Your task to perform on an android device: Search for the best vacuum on Walmart Image 0: 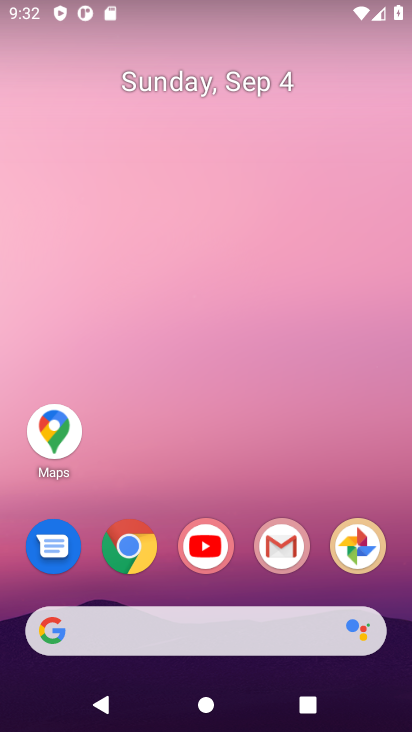
Step 0: click (138, 555)
Your task to perform on an android device: Search for the best vacuum on Walmart Image 1: 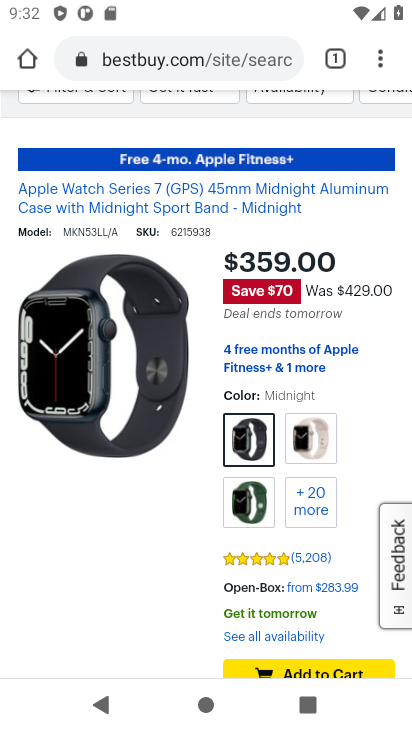
Step 1: click (164, 62)
Your task to perform on an android device: Search for the best vacuum on Walmart Image 2: 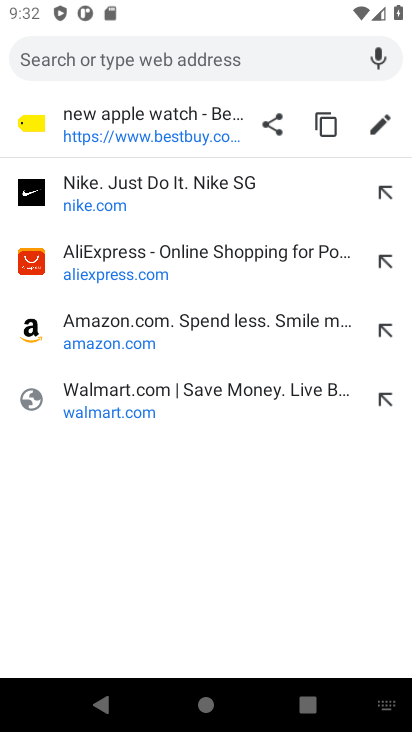
Step 2: type "Walmart"
Your task to perform on an android device: Search for the best vacuum on Walmart Image 3: 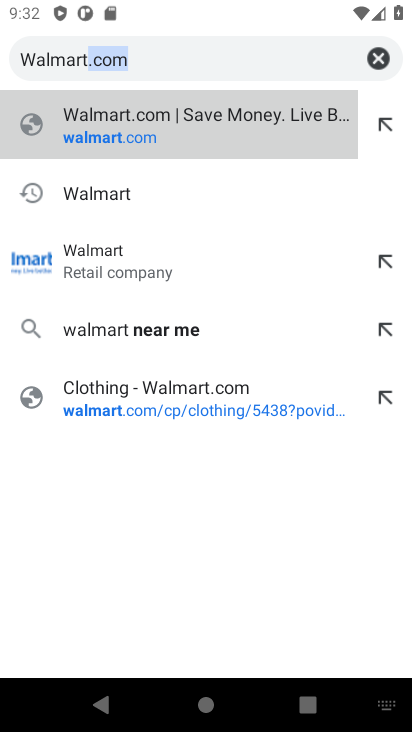
Step 3: click (110, 198)
Your task to perform on an android device: Search for the best vacuum on Walmart Image 4: 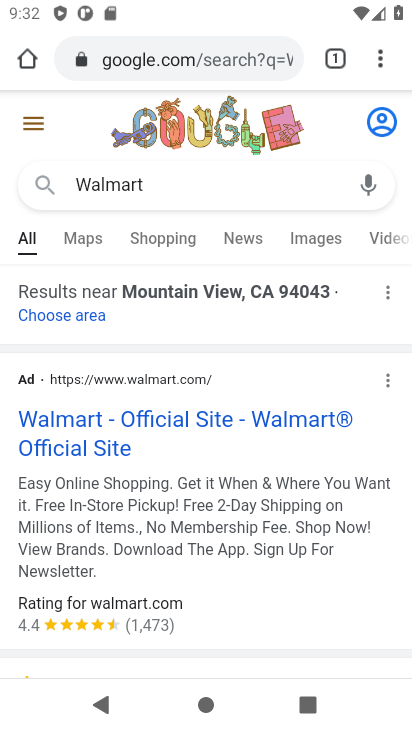
Step 4: drag from (344, 505) to (319, 241)
Your task to perform on an android device: Search for the best vacuum on Walmart Image 5: 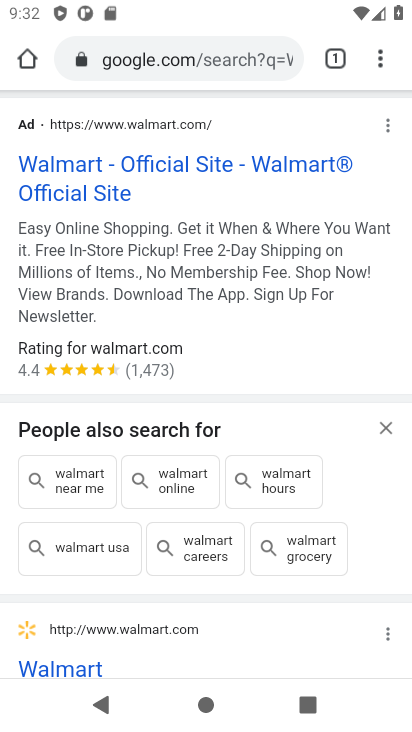
Step 5: drag from (336, 588) to (318, 311)
Your task to perform on an android device: Search for the best vacuum on Walmart Image 6: 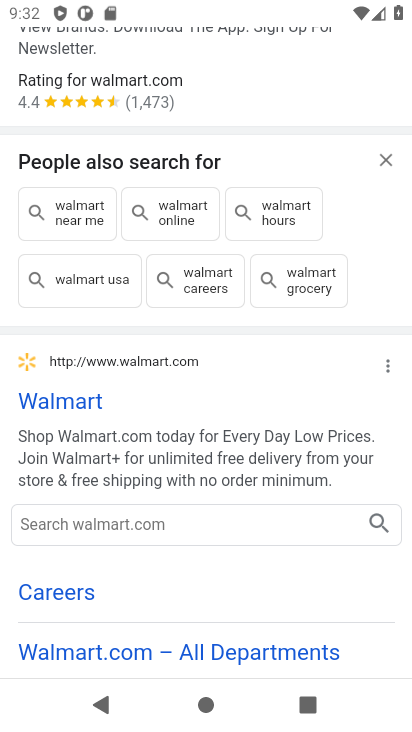
Step 6: drag from (231, 508) to (239, 378)
Your task to perform on an android device: Search for the best vacuum on Walmart Image 7: 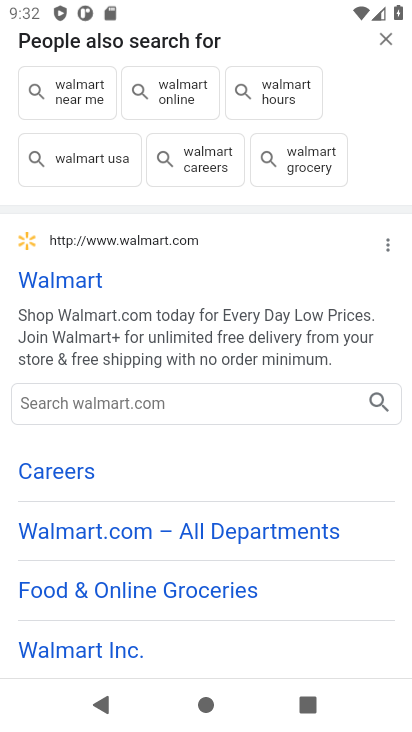
Step 7: click (49, 282)
Your task to perform on an android device: Search for the best vacuum on Walmart Image 8: 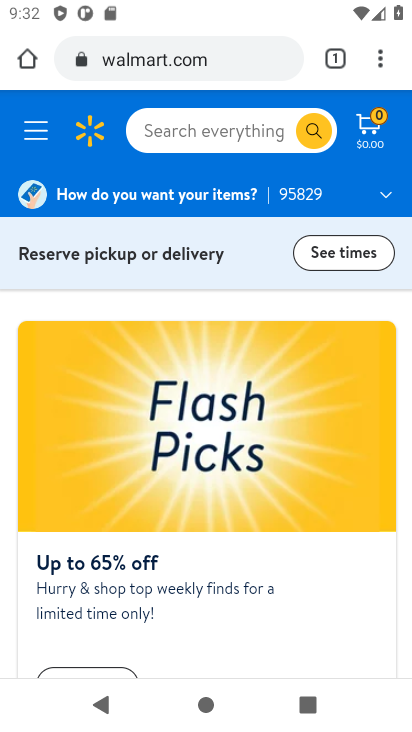
Step 8: click (170, 132)
Your task to perform on an android device: Search for the best vacuum on Walmart Image 9: 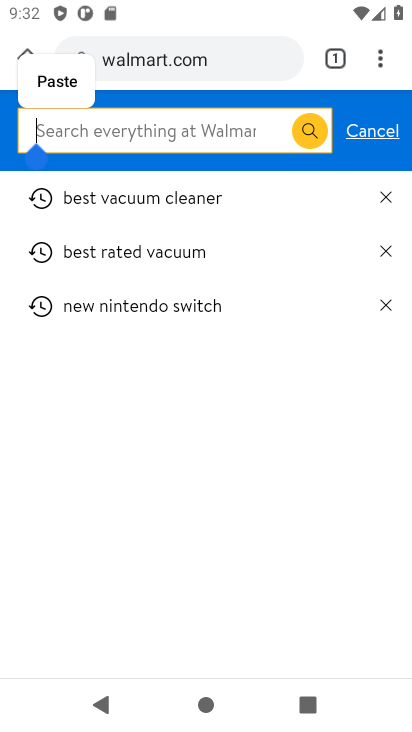
Step 9: type "best vacuum "
Your task to perform on an android device: Search for the best vacuum on Walmart Image 10: 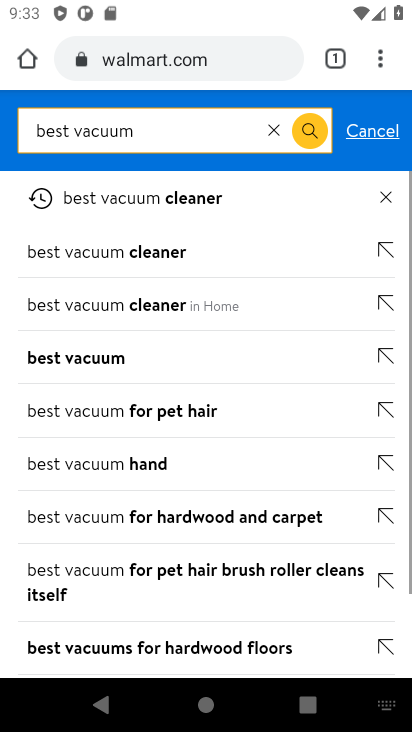
Step 10: click (61, 359)
Your task to perform on an android device: Search for the best vacuum on Walmart Image 11: 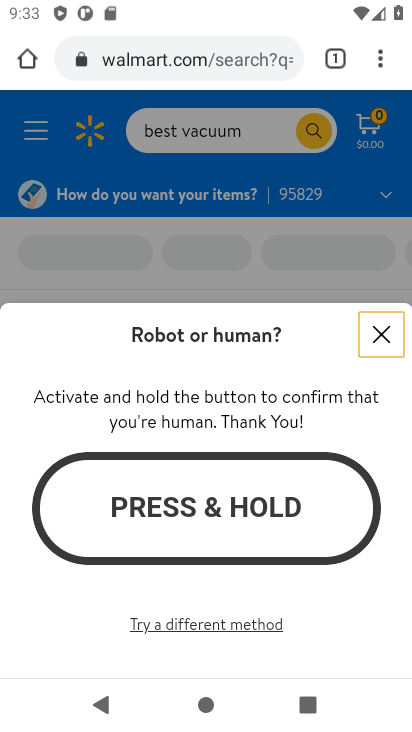
Step 11: click (190, 626)
Your task to perform on an android device: Search for the best vacuum on Walmart Image 12: 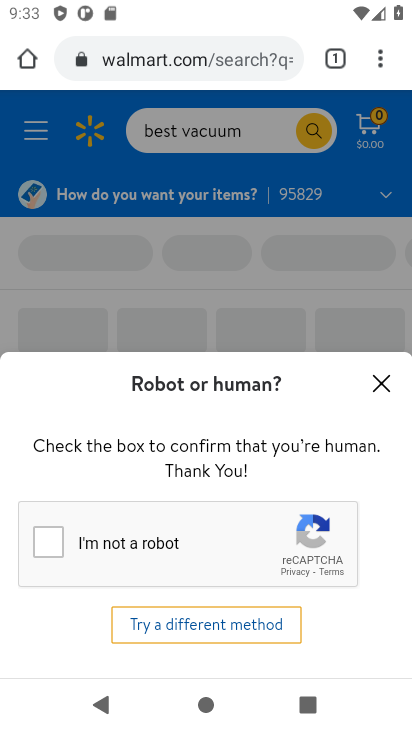
Step 12: click (48, 544)
Your task to perform on an android device: Search for the best vacuum on Walmart Image 13: 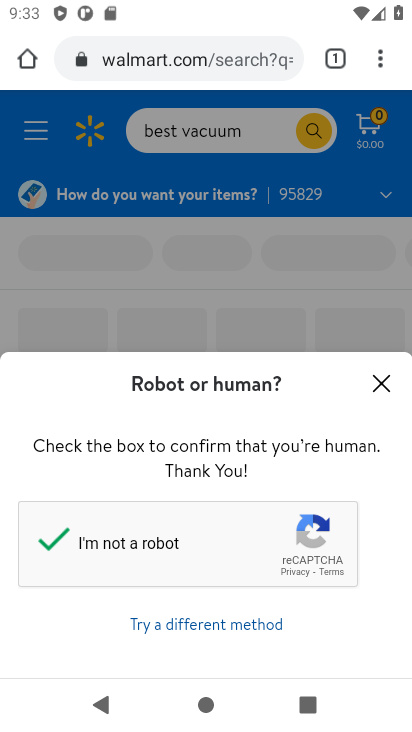
Step 13: task complete